Your task to perform on an android device: Open settings on Google Maps Image 0: 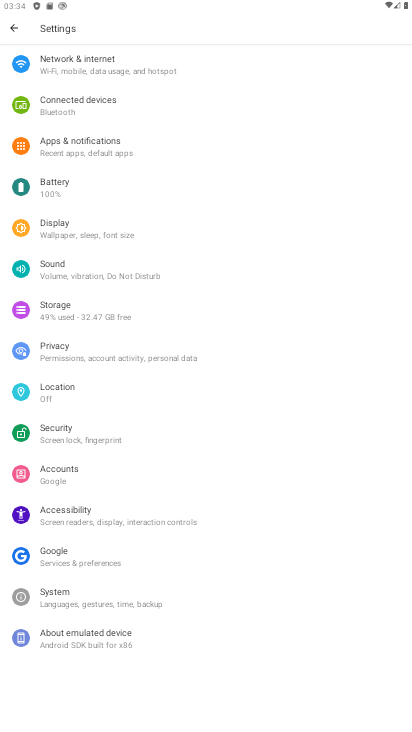
Step 0: press home button
Your task to perform on an android device: Open settings on Google Maps Image 1: 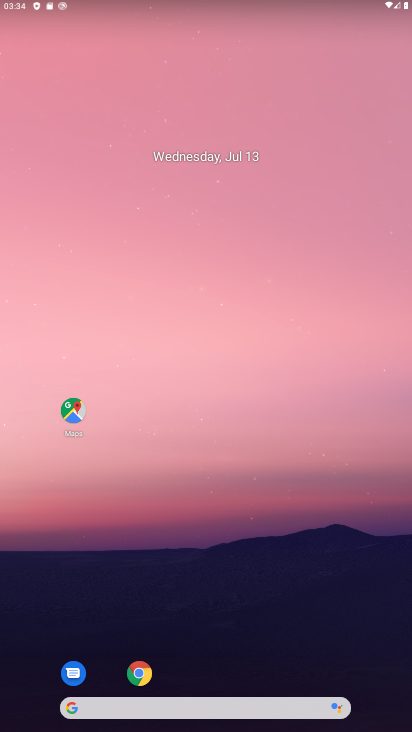
Step 1: drag from (236, 625) to (228, 3)
Your task to perform on an android device: Open settings on Google Maps Image 2: 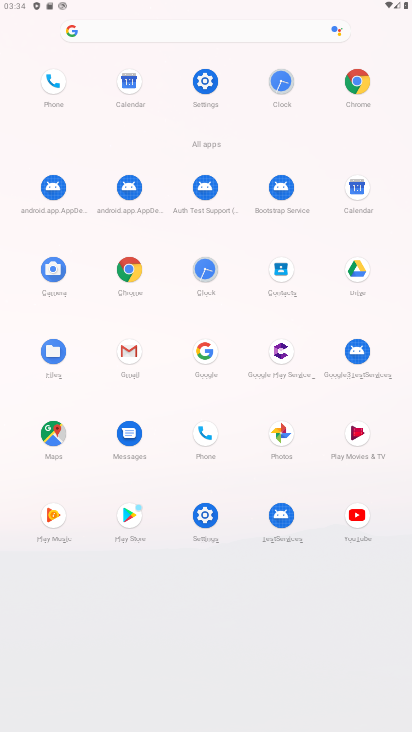
Step 2: click (43, 433)
Your task to perform on an android device: Open settings on Google Maps Image 3: 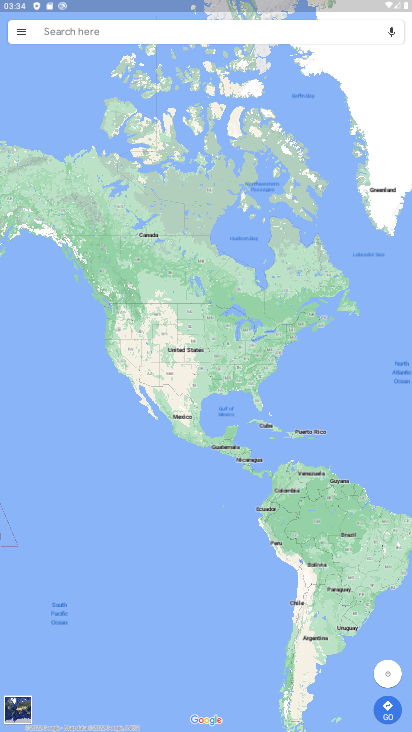
Step 3: click (22, 27)
Your task to perform on an android device: Open settings on Google Maps Image 4: 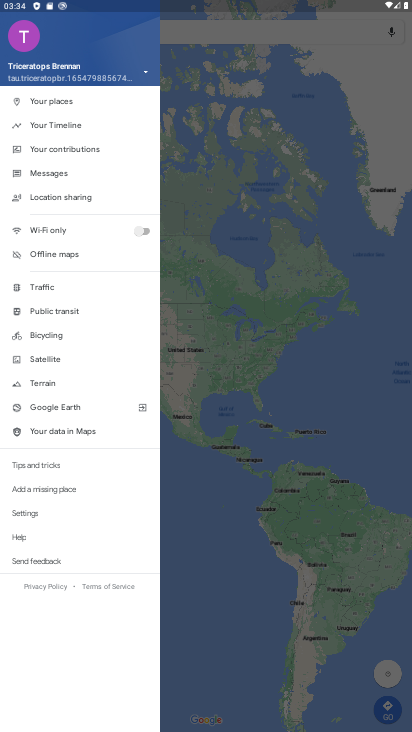
Step 4: click (27, 514)
Your task to perform on an android device: Open settings on Google Maps Image 5: 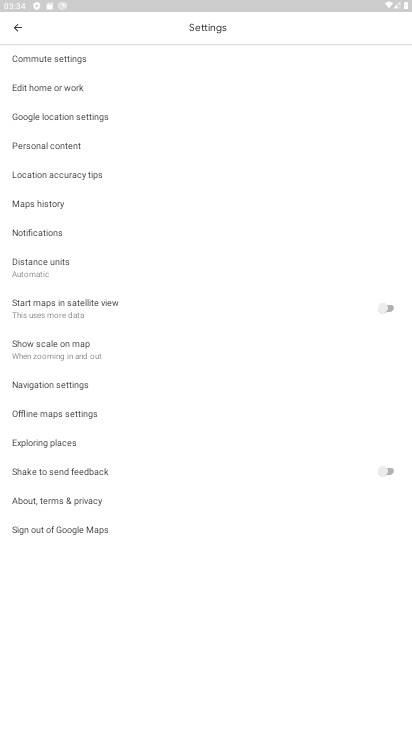
Step 5: task complete